Your task to perform on an android device: What's on my calendar today? Image 0: 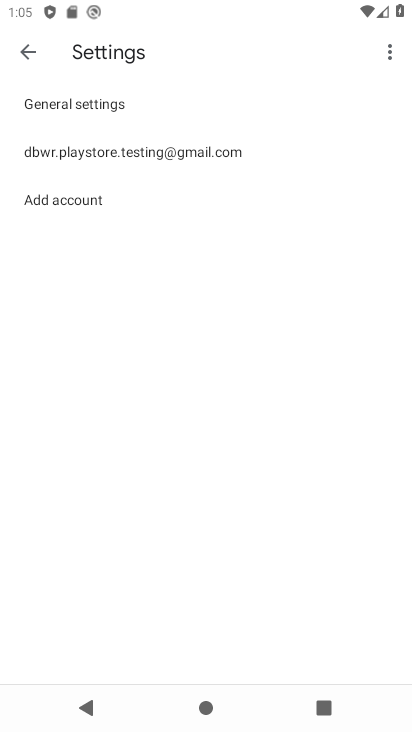
Step 0: press home button
Your task to perform on an android device: What's on my calendar today? Image 1: 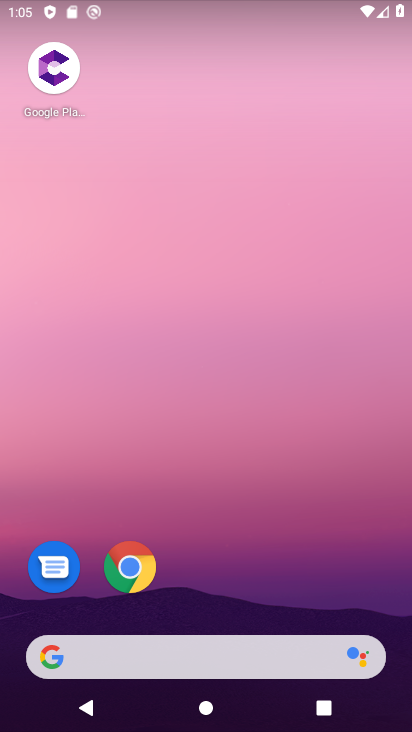
Step 1: drag from (394, 631) to (349, 67)
Your task to perform on an android device: What's on my calendar today? Image 2: 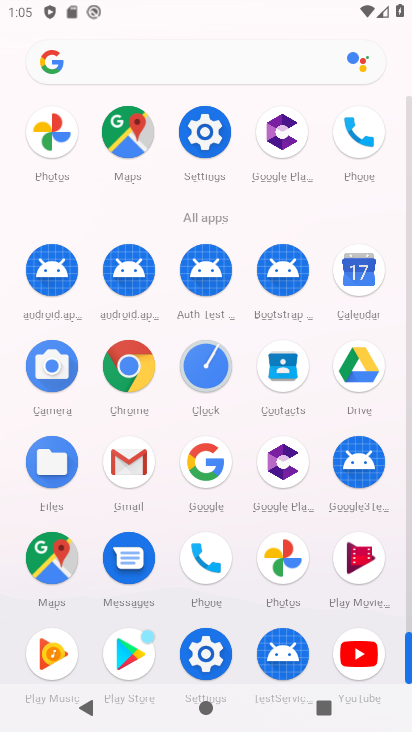
Step 2: click (360, 269)
Your task to perform on an android device: What's on my calendar today? Image 3: 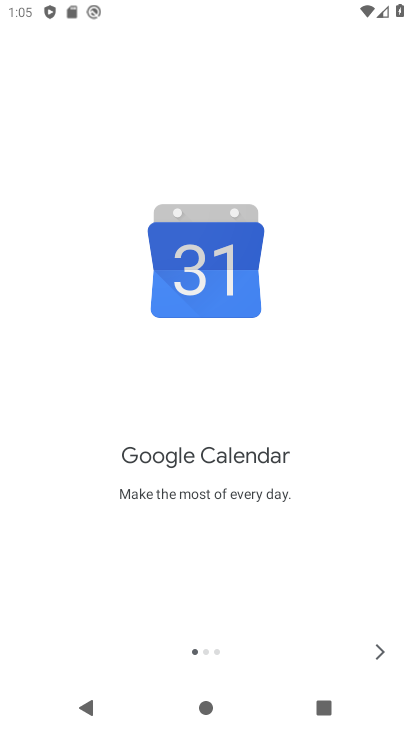
Step 3: click (378, 649)
Your task to perform on an android device: What's on my calendar today? Image 4: 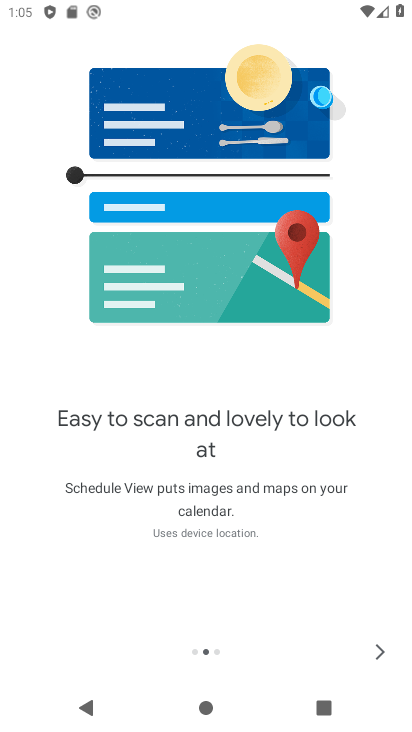
Step 4: click (378, 649)
Your task to perform on an android device: What's on my calendar today? Image 5: 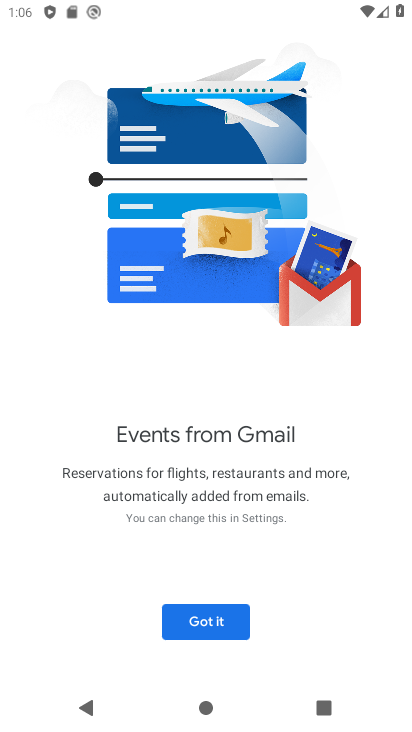
Step 5: click (208, 625)
Your task to perform on an android device: What's on my calendar today? Image 6: 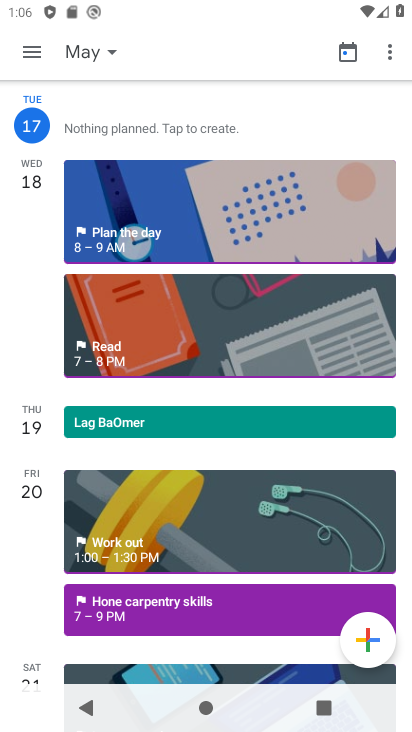
Step 6: click (28, 49)
Your task to perform on an android device: What's on my calendar today? Image 7: 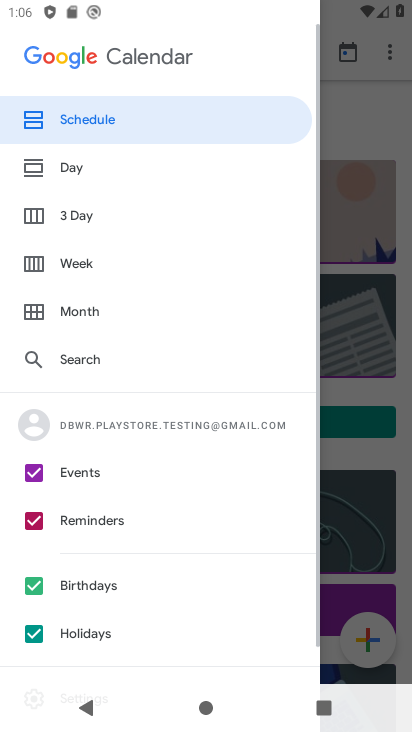
Step 7: click (70, 168)
Your task to perform on an android device: What's on my calendar today? Image 8: 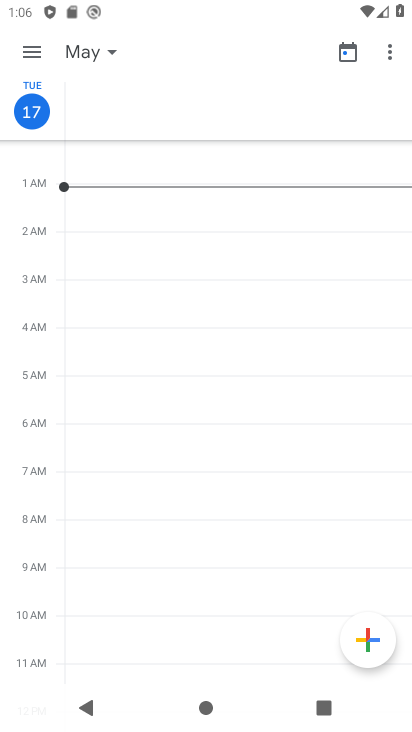
Step 8: click (110, 46)
Your task to perform on an android device: What's on my calendar today? Image 9: 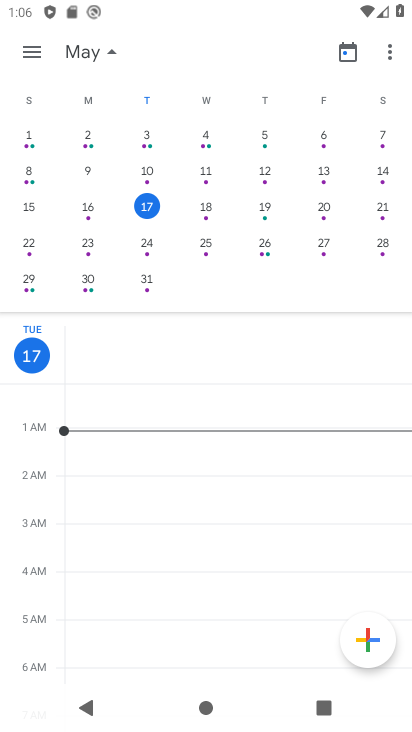
Step 9: click (147, 204)
Your task to perform on an android device: What's on my calendar today? Image 10: 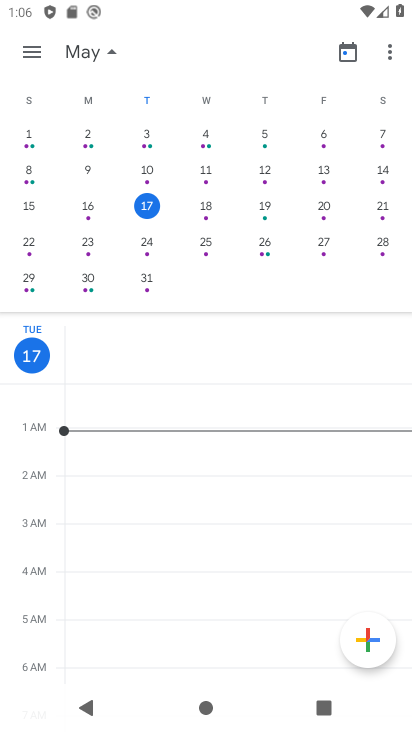
Step 10: task complete